Your task to perform on an android device: Go to eBay Image 0: 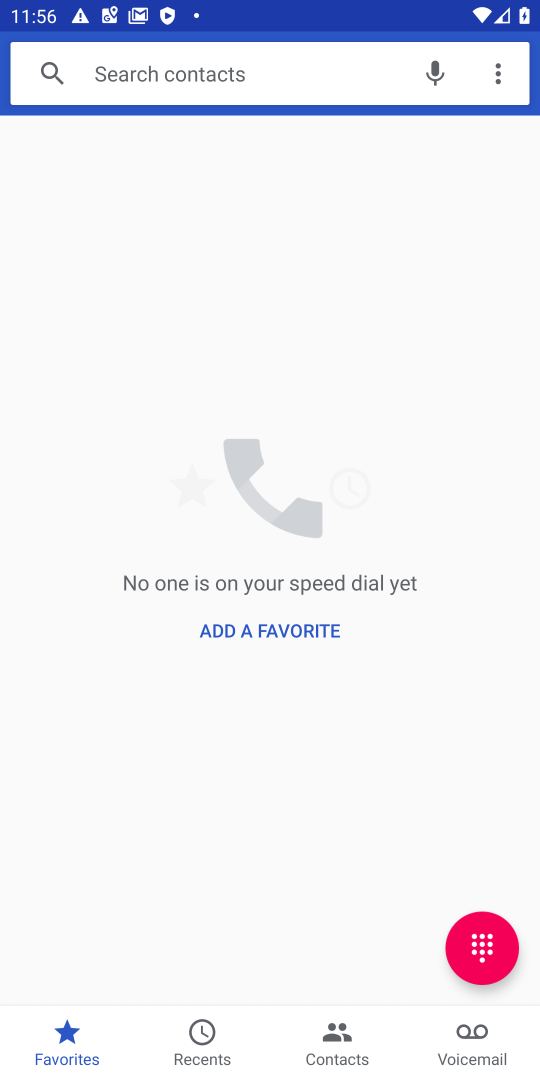
Step 0: press home button
Your task to perform on an android device: Go to eBay Image 1: 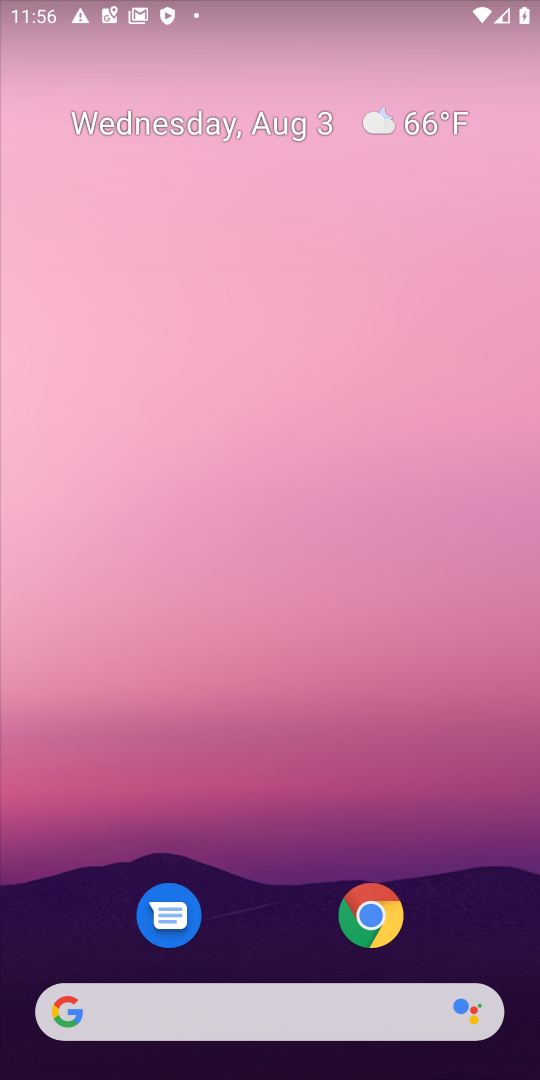
Step 1: click (372, 918)
Your task to perform on an android device: Go to eBay Image 2: 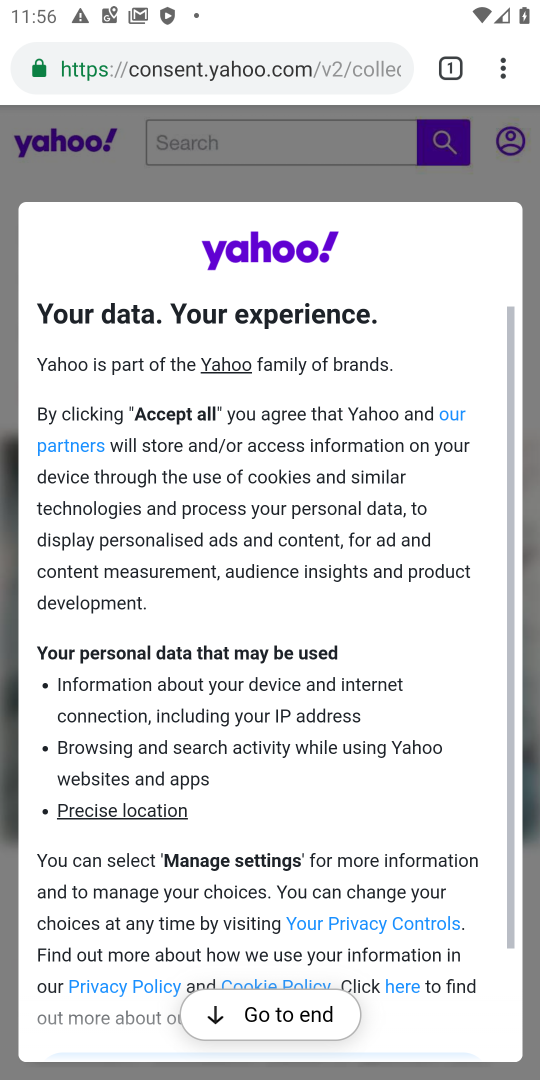
Step 2: press back button
Your task to perform on an android device: Go to eBay Image 3: 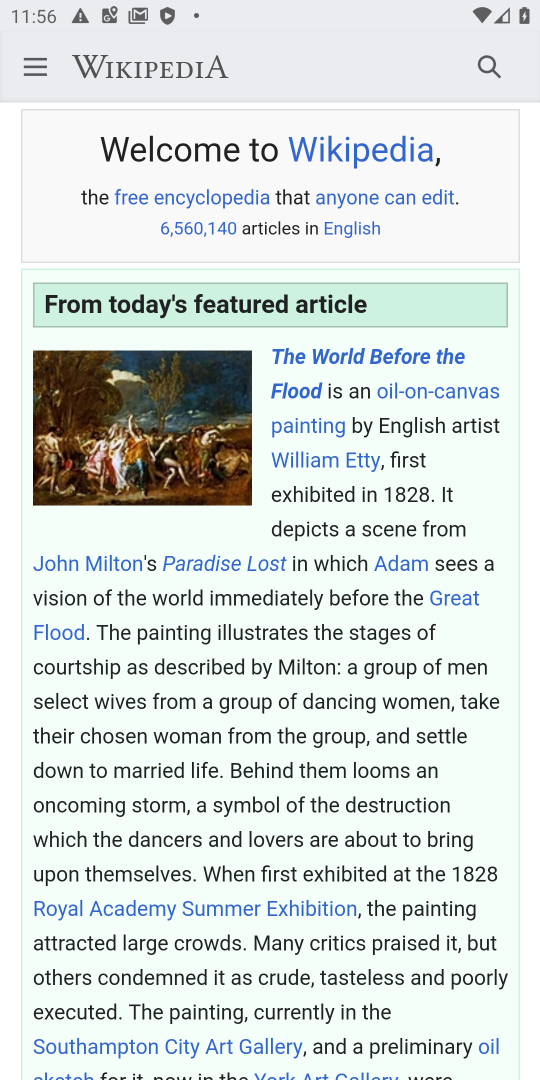
Step 3: press back button
Your task to perform on an android device: Go to eBay Image 4: 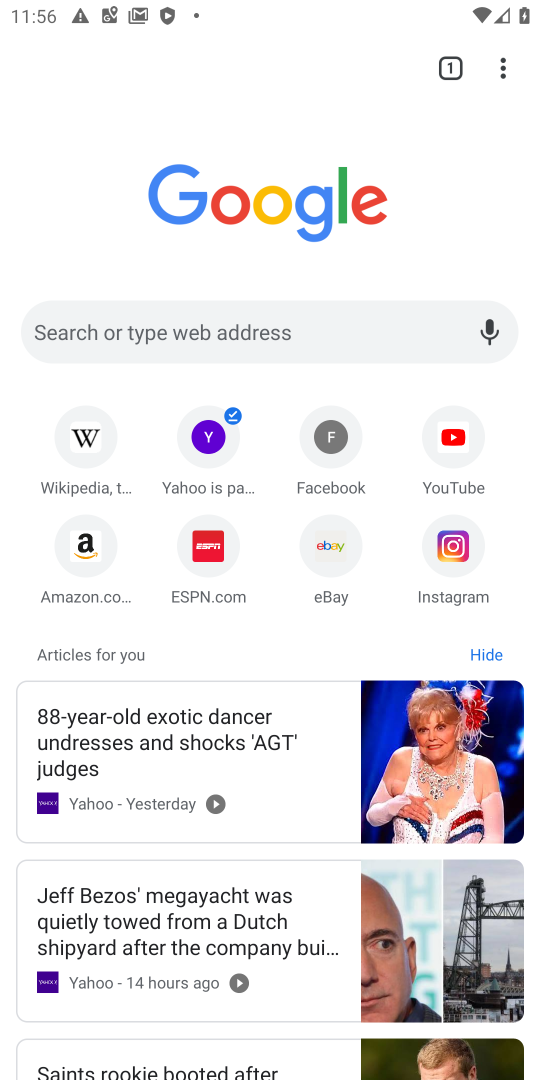
Step 4: click (331, 572)
Your task to perform on an android device: Go to eBay Image 5: 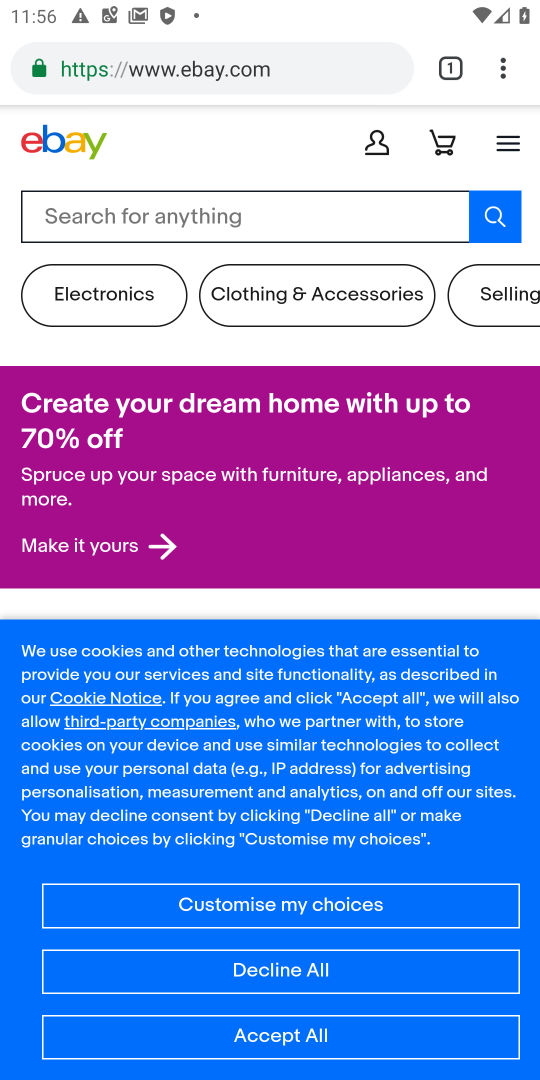
Step 5: task complete